Your task to perform on an android device: allow cookies in the chrome app Image 0: 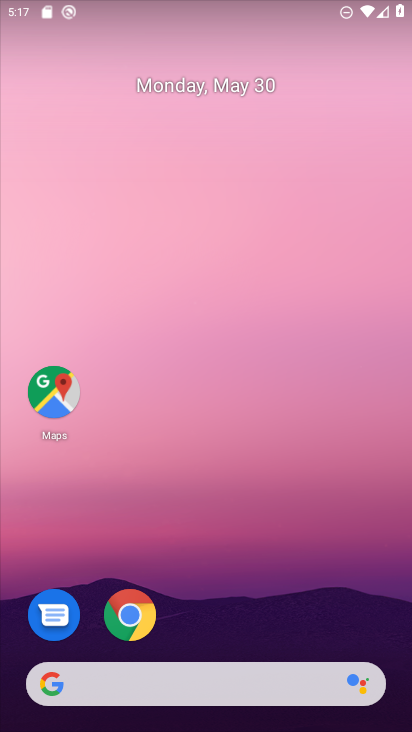
Step 0: click (130, 622)
Your task to perform on an android device: allow cookies in the chrome app Image 1: 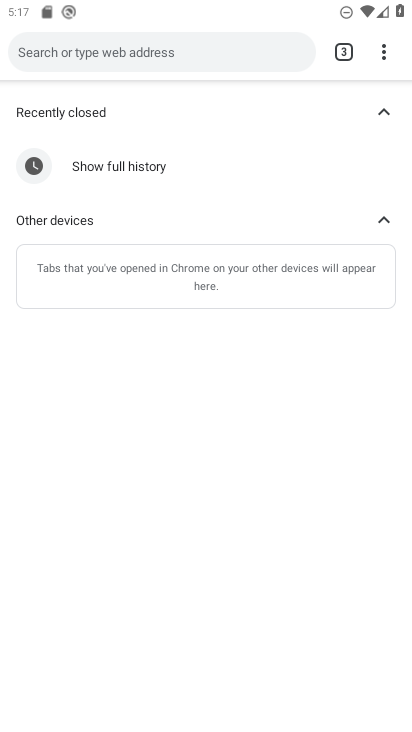
Step 1: click (391, 47)
Your task to perform on an android device: allow cookies in the chrome app Image 2: 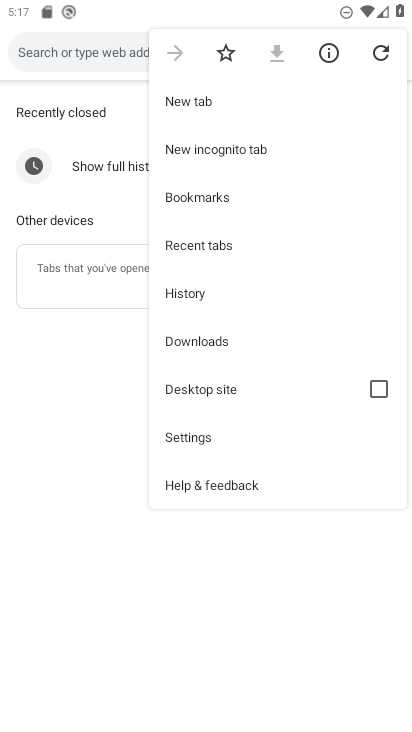
Step 2: click (176, 433)
Your task to perform on an android device: allow cookies in the chrome app Image 3: 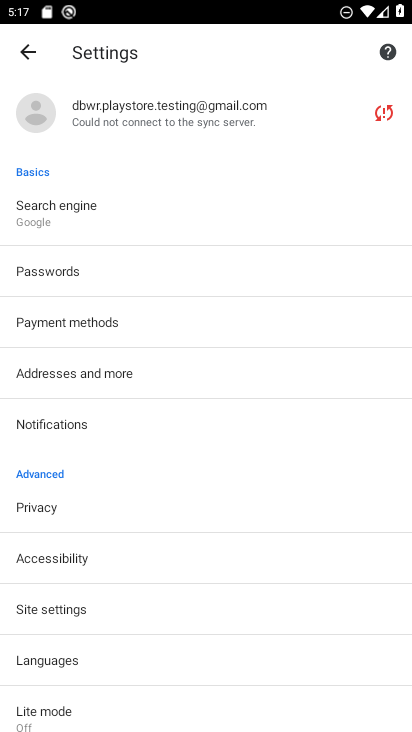
Step 3: click (98, 604)
Your task to perform on an android device: allow cookies in the chrome app Image 4: 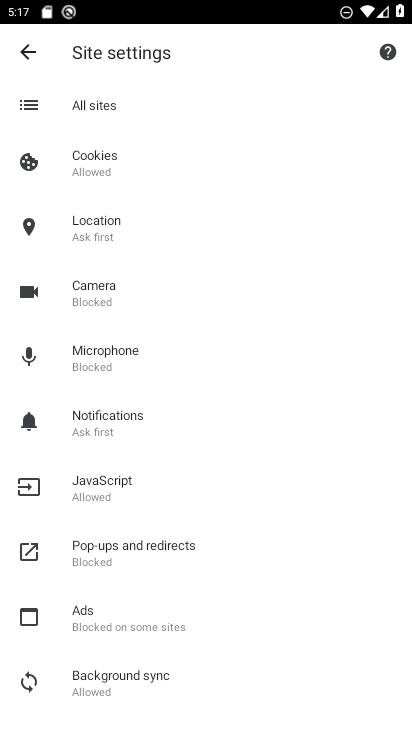
Step 4: click (242, 174)
Your task to perform on an android device: allow cookies in the chrome app Image 5: 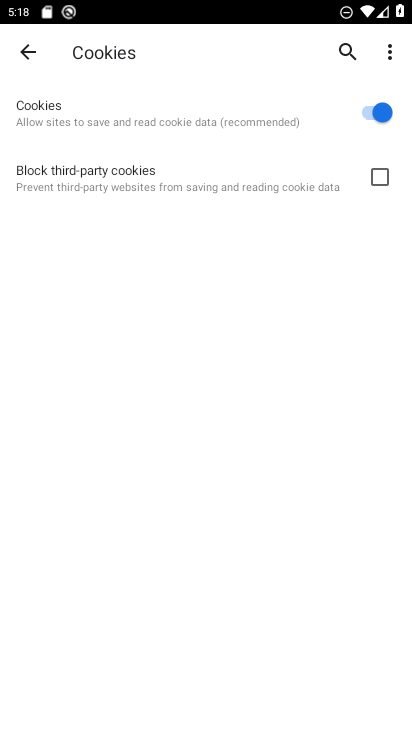
Step 5: task complete